Your task to perform on an android device: toggle location history Image 0: 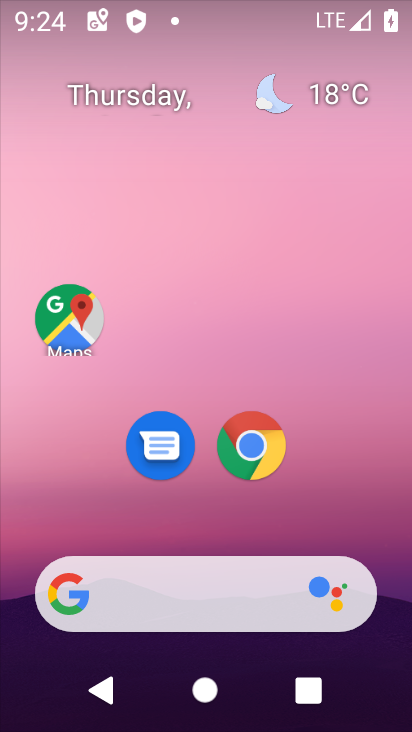
Step 0: click (83, 345)
Your task to perform on an android device: toggle location history Image 1: 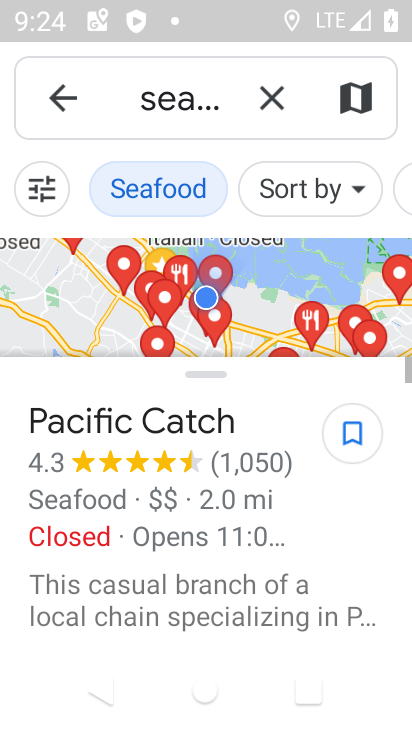
Step 1: click (72, 105)
Your task to perform on an android device: toggle location history Image 2: 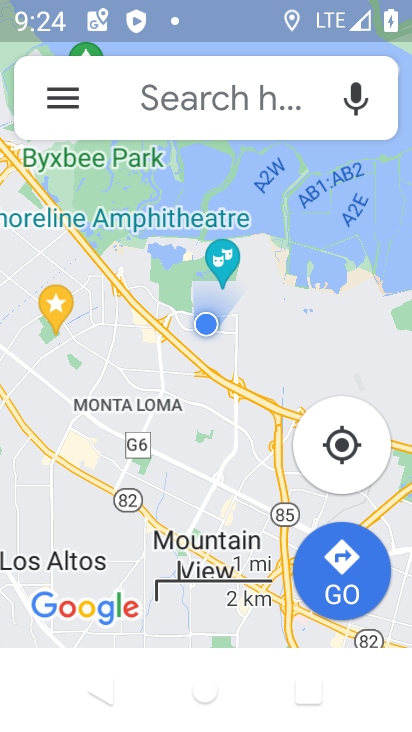
Step 2: click (72, 105)
Your task to perform on an android device: toggle location history Image 3: 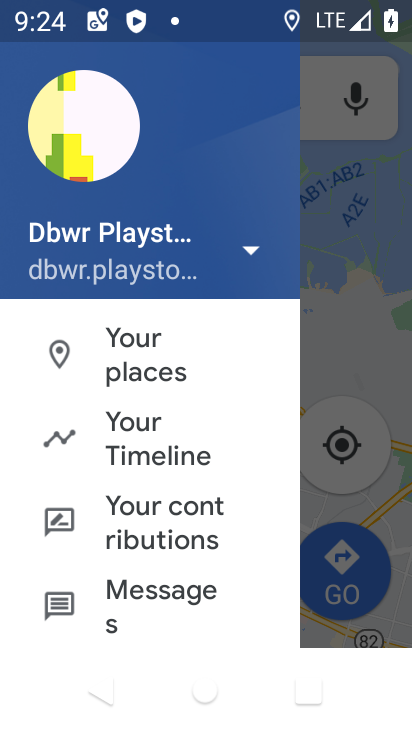
Step 3: click (162, 455)
Your task to perform on an android device: toggle location history Image 4: 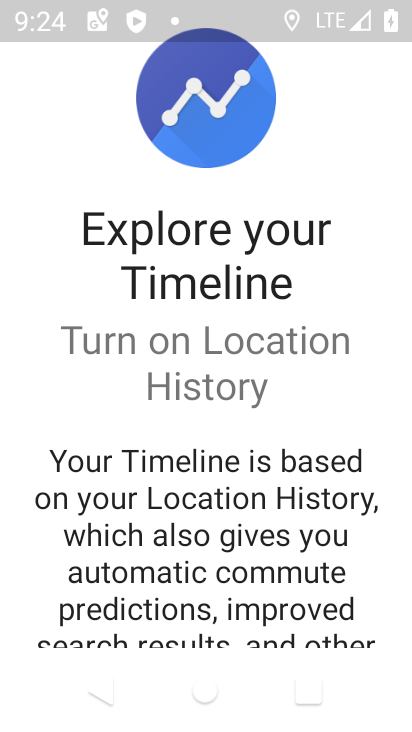
Step 4: drag from (260, 588) to (209, 225)
Your task to perform on an android device: toggle location history Image 5: 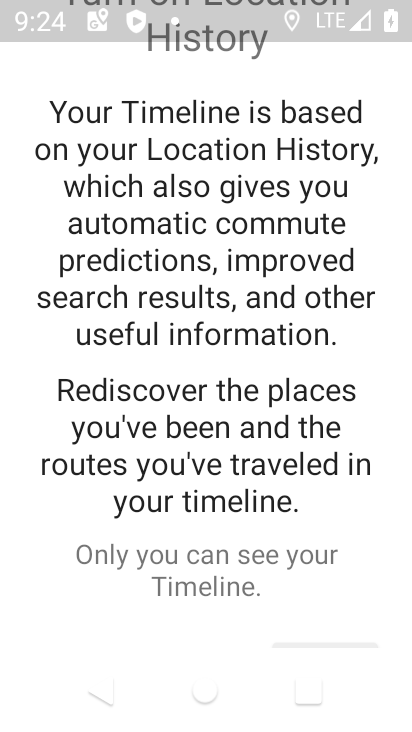
Step 5: drag from (252, 565) to (226, 201)
Your task to perform on an android device: toggle location history Image 6: 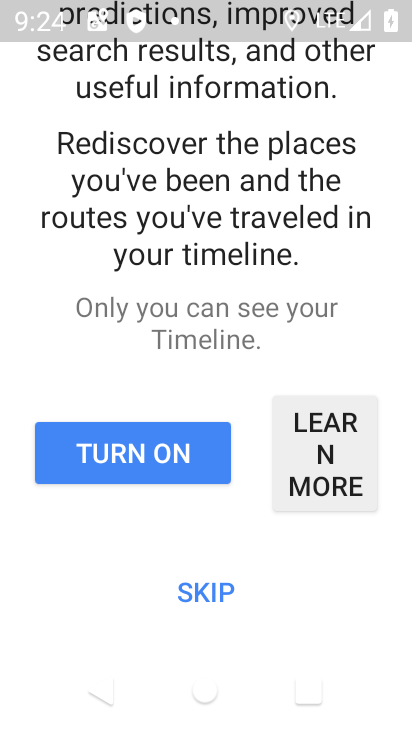
Step 6: click (220, 592)
Your task to perform on an android device: toggle location history Image 7: 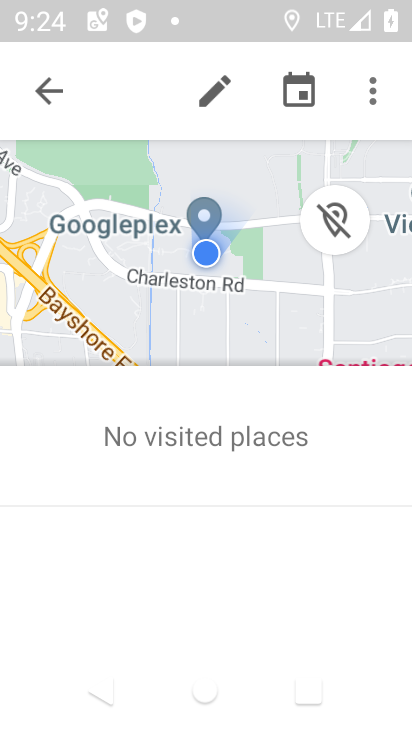
Step 7: click (365, 98)
Your task to perform on an android device: toggle location history Image 8: 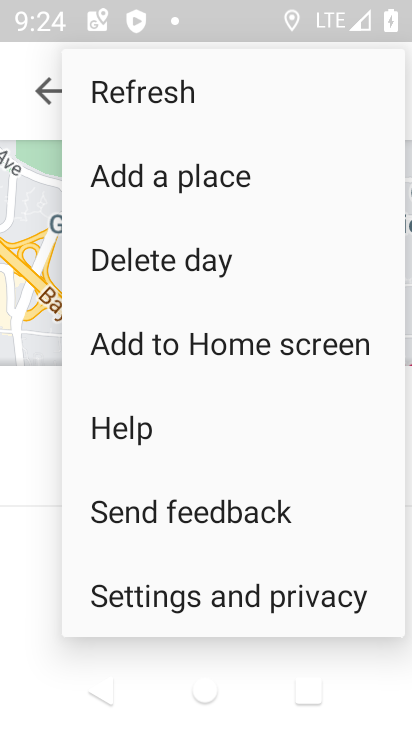
Step 8: click (302, 593)
Your task to perform on an android device: toggle location history Image 9: 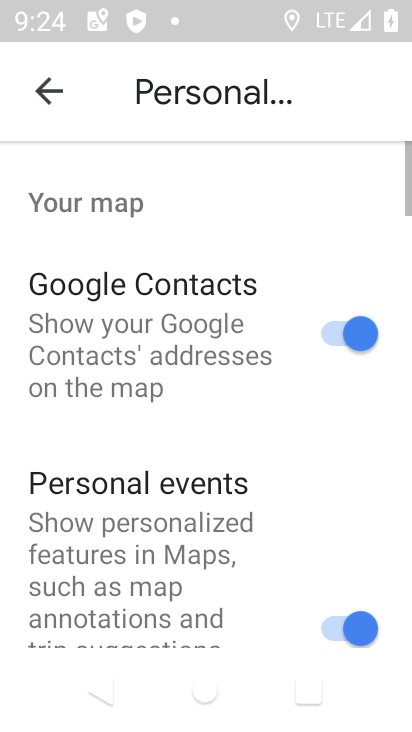
Step 9: drag from (302, 593) to (263, 241)
Your task to perform on an android device: toggle location history Image 10: 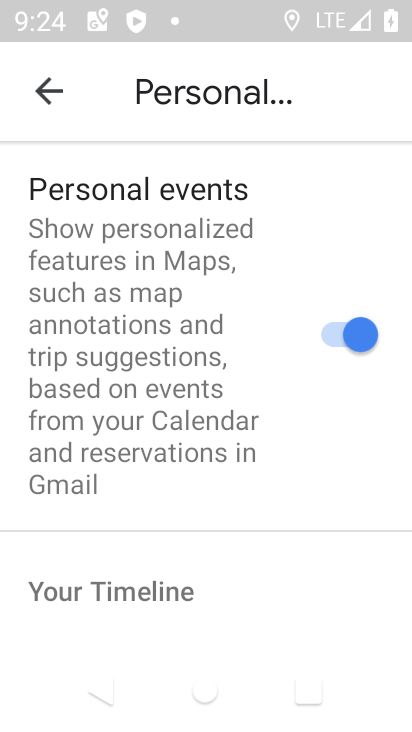
Step 10: drag from (330, 597) to (262, 140)
Your task to perform on an android device: toggle location history Image 11: 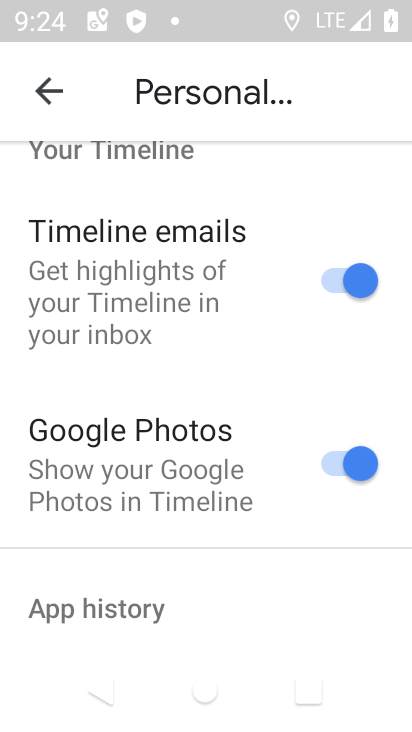
Step 11: drag from (300, 612) to (280, 248)
Your task to perform on an android device: toggle location history Image 12: 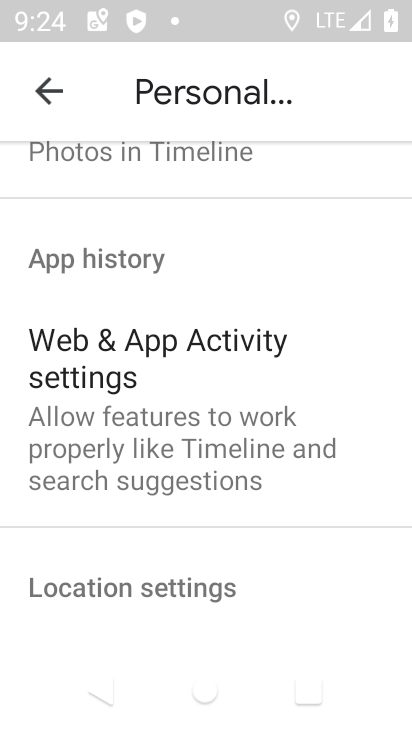
Step 12: drag from (339, 578) to (287, 199)
Your task to perform on an android device: toggle location history Image 13: 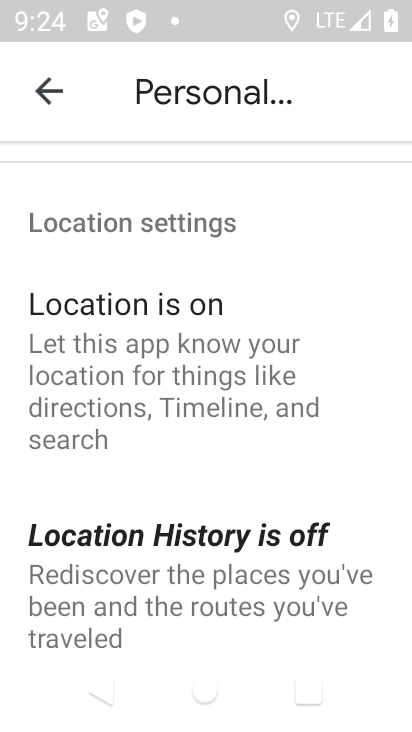
Step 13: click (313, 585)
Your task to perform on an android device: toggle location history Image 14: 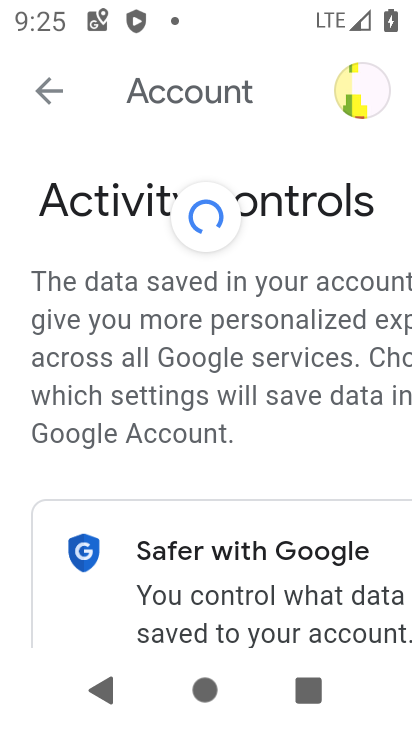
Step 14: drag from (301, 447) to (249, 131)
Your task to perform on an android device: toggle location history Image 15: 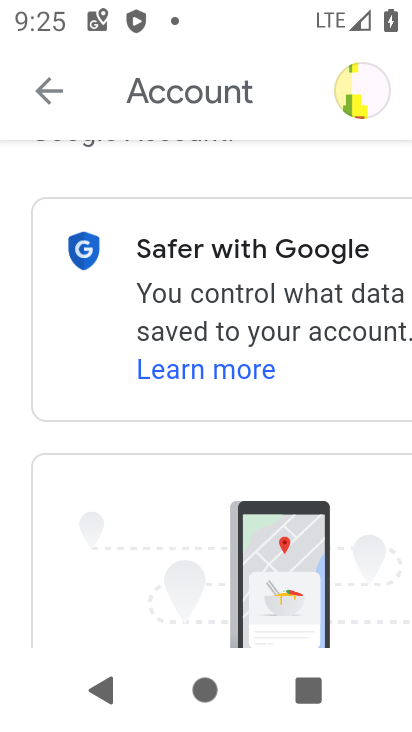
Step 15: drag from (310, 546) to (270, 176)
Your task to perform on an android device: toggle location history Image 16: 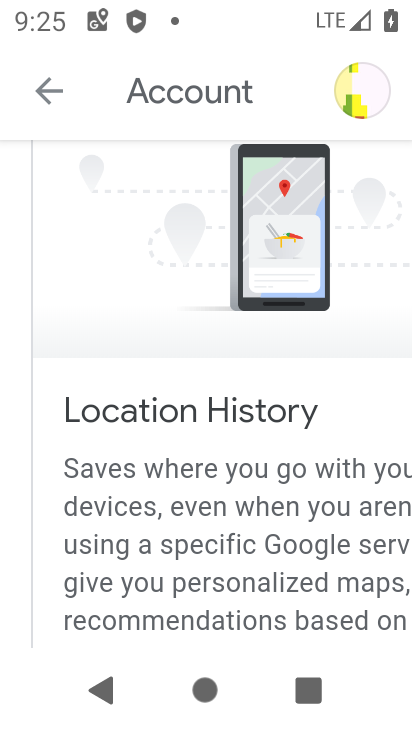
Step 16: drag from (353, 590) to (306, 275)
Your task to perform on an android device: toggle location history Image 17: 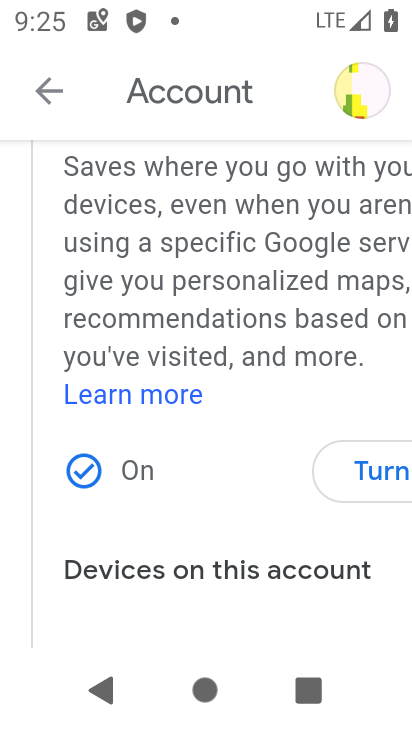
Step 17: click (364, 487)
Your task to perform on an android device: toggle location history Image 18: 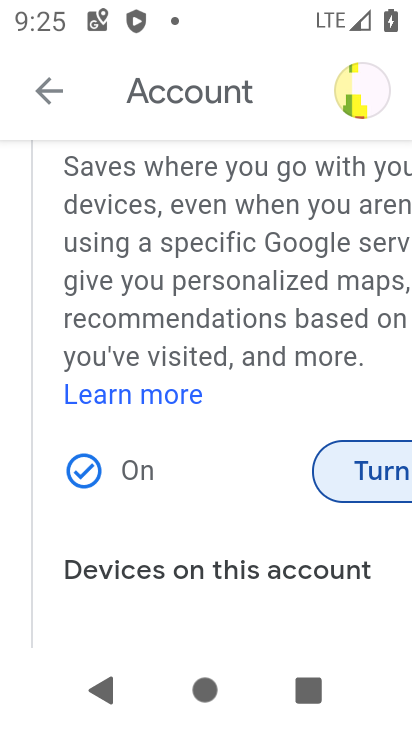
Step 18: click (373, 474)
Your task to perform on an android device: toggle location history Image 19: 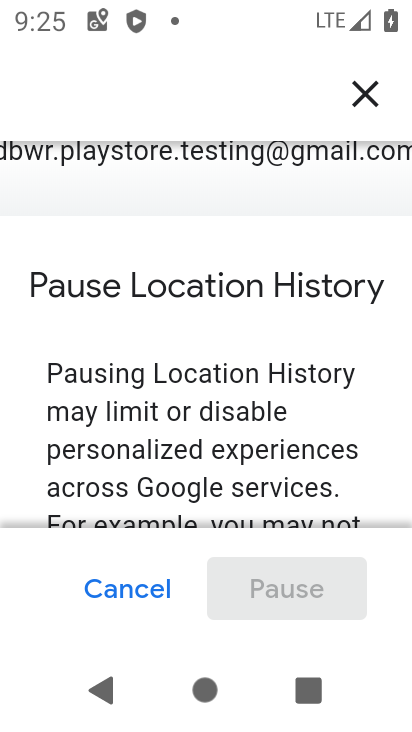
Step 19: drag from (335, 504) to (281, 133)
Your task to perform on an android device: toggle location history Image 20: 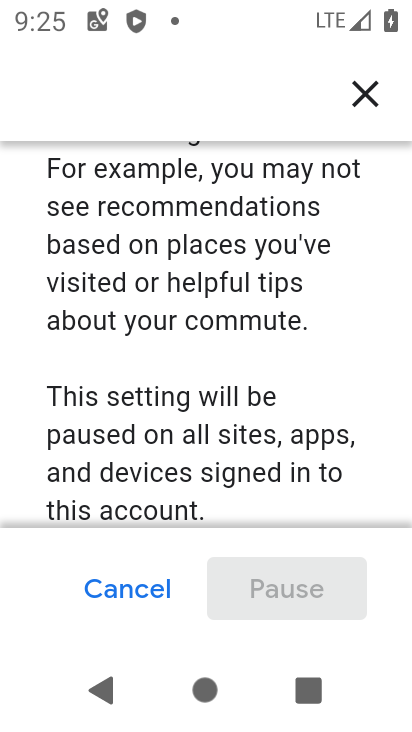
Step 20: drag from (344, 466) to (283, 148)
Your task to perform on an android device: toggle location history Image 21: 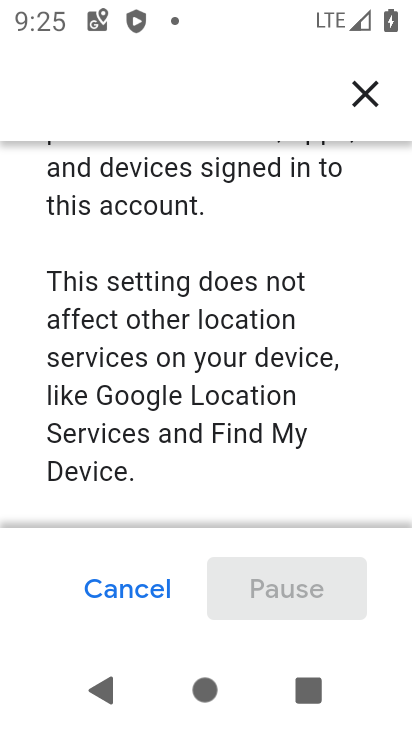
Step 21: drag from (336, 458) to (293, 196)
Your task to perform on an android device: toggle location history Image 22: 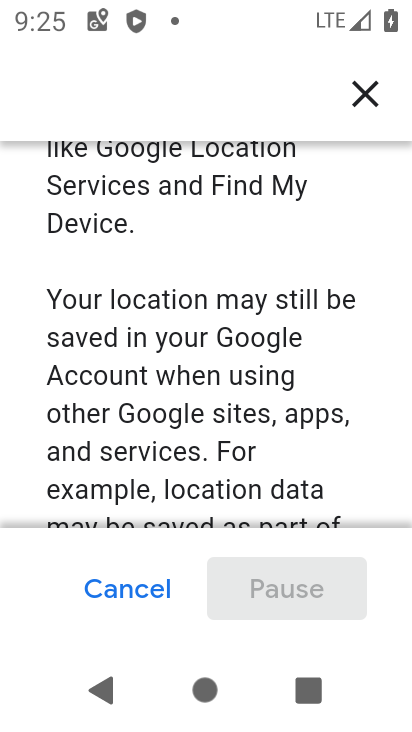
Step 22: drag from (351, 485) to (293, 168)
Your task to perform on an android device: toggle location history Image 23: 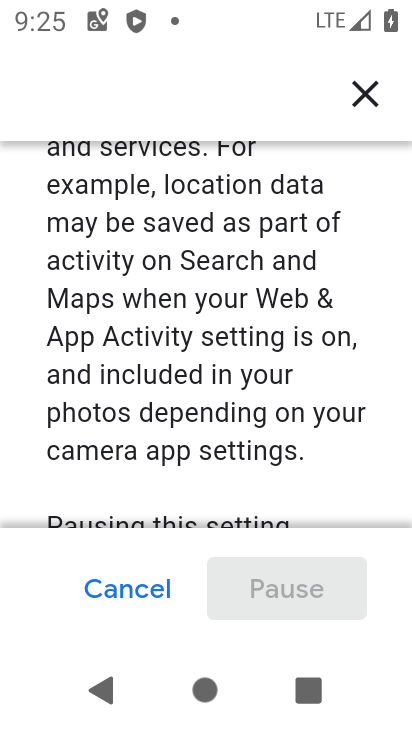
Step 23: drag from (338, 464) to (295, 163)
Your task to perform on an android device: toggle location history Image 24: 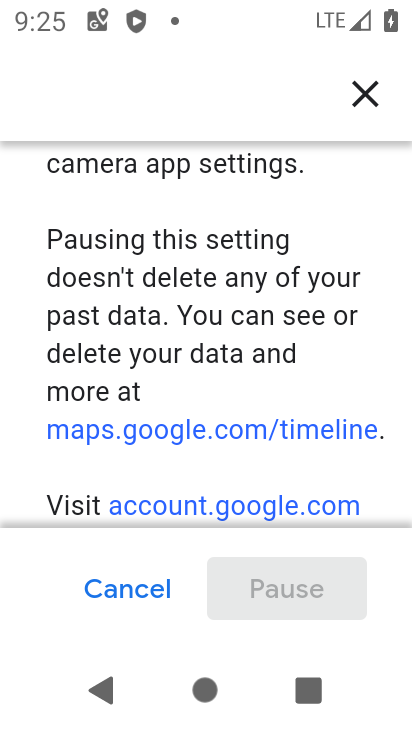
Step 24: drag from (352, 471) to (303, 205)
Your task to perform on an android device: toggle location history Image 25: 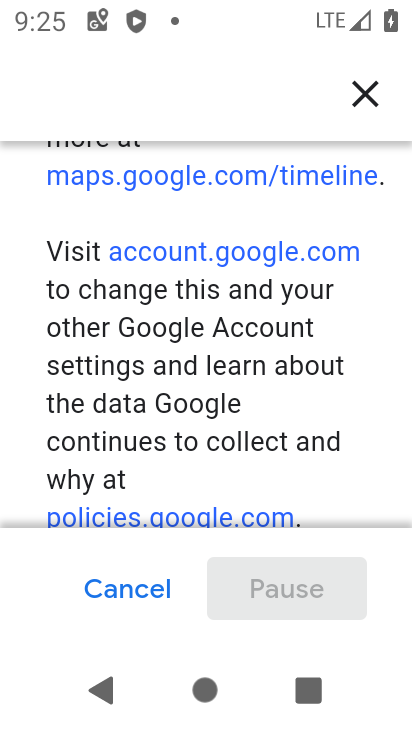
Step 25: drag from (339, 501) to (309, 199)
Your task to perform on an android device: toggle location history Image 26: 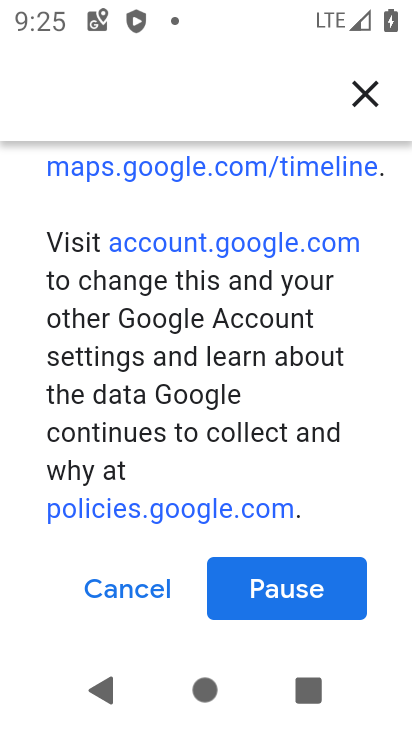
Step 26: click (313, 599)
Your task to perform on an android device: toggle location history Image 27: 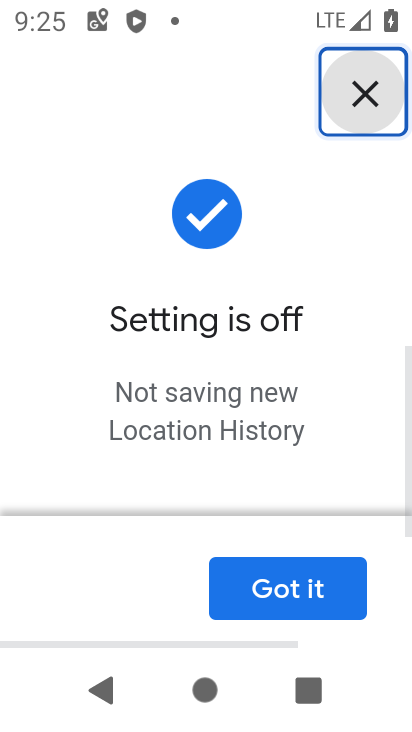
Step 27: click (319, 595)
Your task to perform on an android device: toggle location history Image 28: 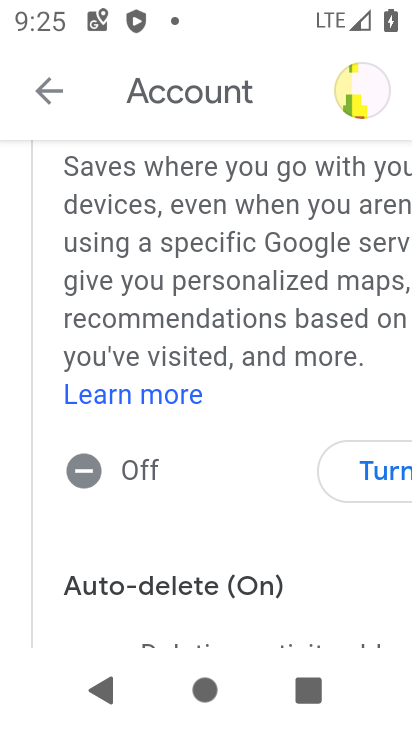
Step 28: task complete